Your task to perform on an android device: Go to internet settings Image 0: 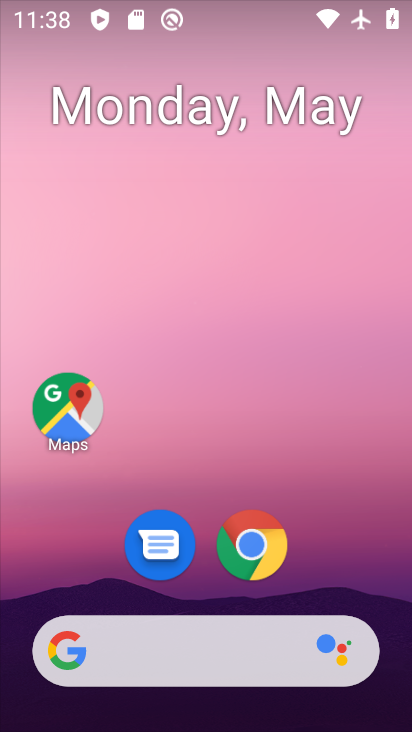
Step 0: drag from (344, 573) to (296, 56)
Your task to perform on an android device: Go to internet settings Image 1: 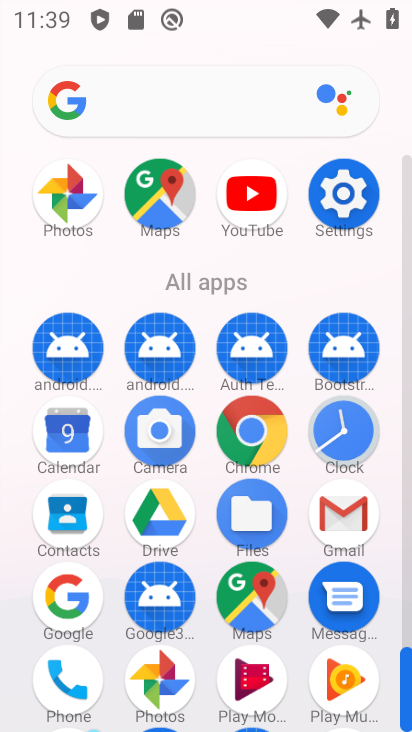
Step 1: click (352, 200)
Your task to perform on an android device: Go to internet settings Image 2: 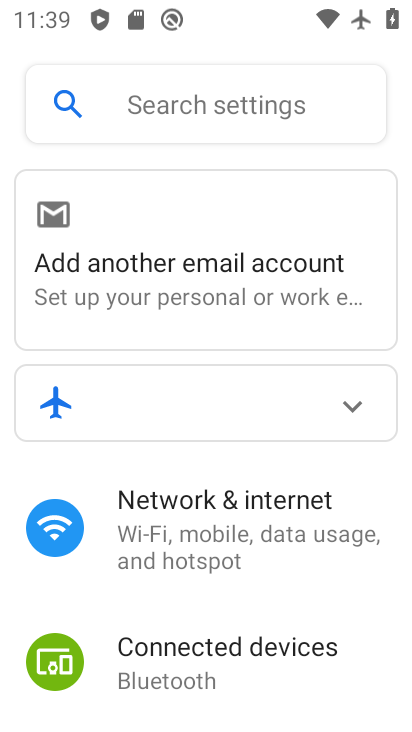
Step 2: click (196, 551)
Your task to perform on an android device: Go to internet settings Image 3: 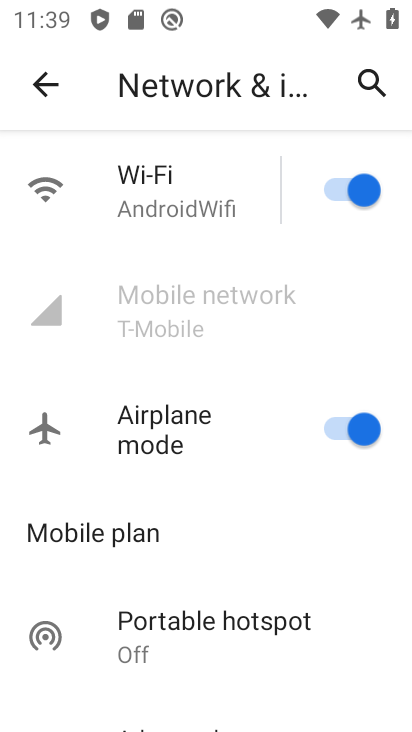
Step 3: click (172, 317)
Your task to perform on an android device: Go to internet settings Image 4: 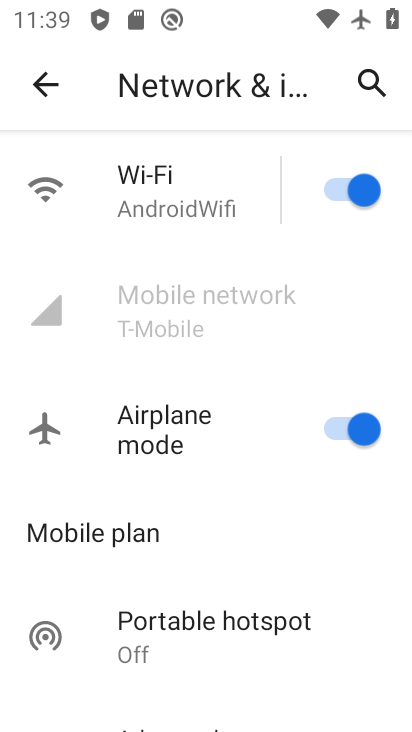
Step 4: task complete